Your task to perform on an android device: toggle sleep mode Image 0: 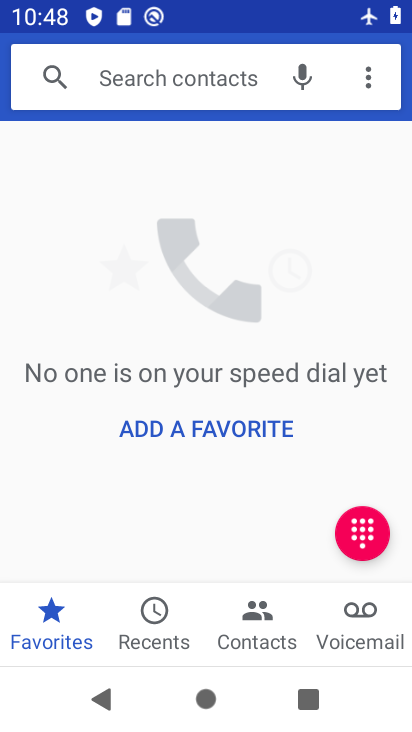
Step 0: press home button
Your task to perform on an android device: toggle sleep mode Image 1: 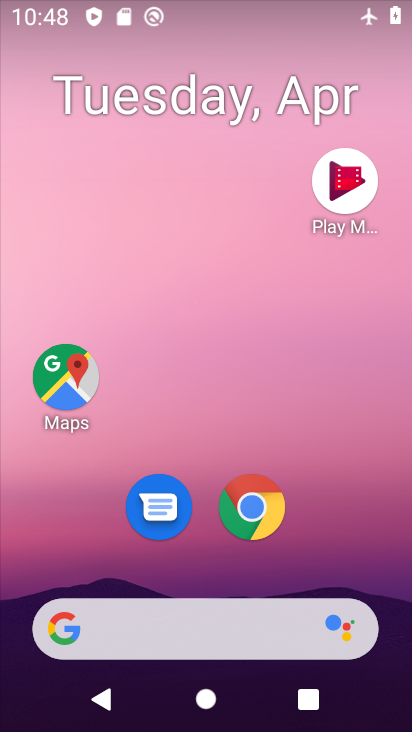
Step 1: drag from (211, 591) to (225, 221)
Your task to perform on an android device: toggle sleep mode Image 2: 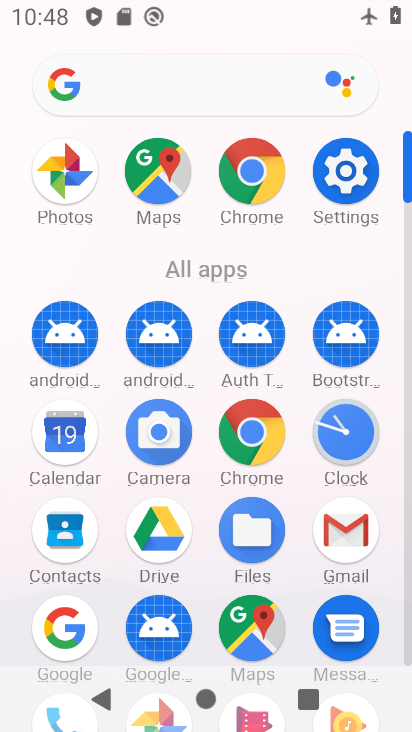
Step 2: click (343, 172)
Your task to perform on an android device: toggle sleep mode Image 3: 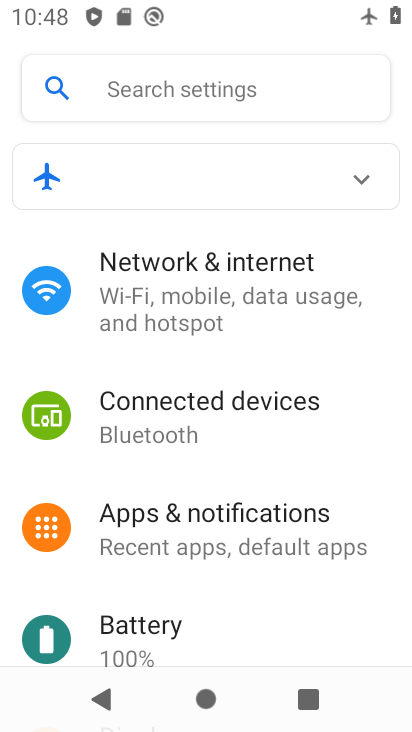
Step 3: drag from (184, 567) to (208, 301)
Your task to perform on an android device: toggle sleep mode Image 4: 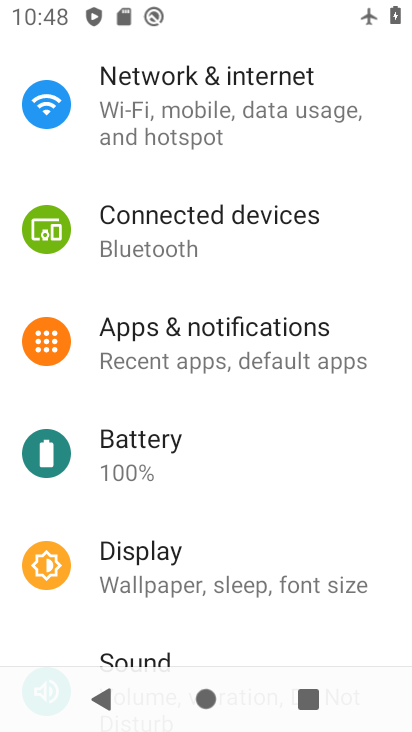
Step 4: click (236, 580)
Your task to perform on an android device: toggle sleep mode Image 5: 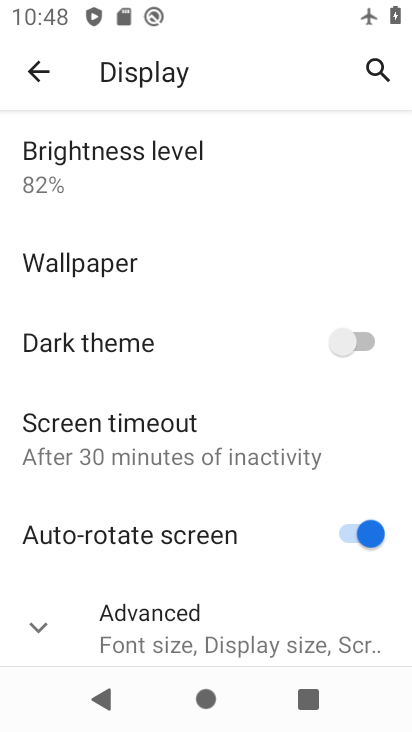
Step 5: task complete